Your task to perform on an android device: refresh tabs in the chrome app Image 0: 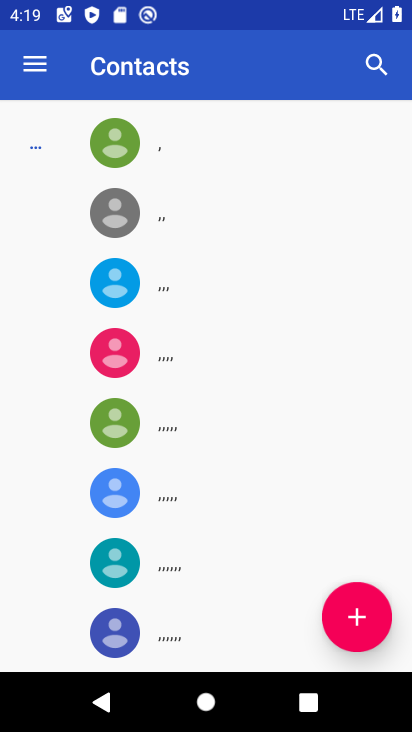
Step 0: press home button
Your task to perform on an android device: refresh tabs in the chrome app Image 1: 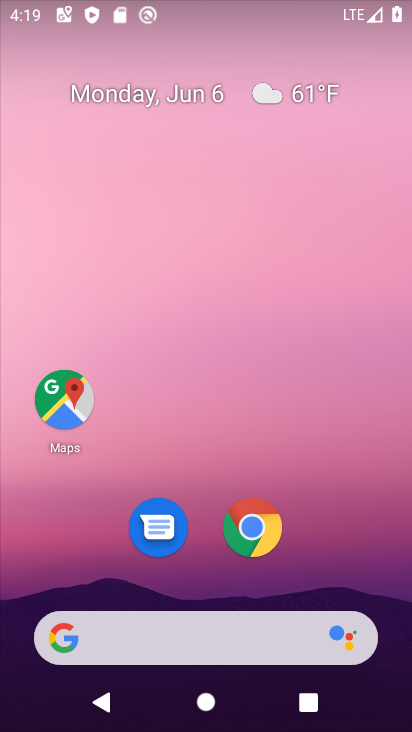
Step 1: click (260, 551)
Your task to perform on an android device: refresh tabs in the chrome app Image 2: 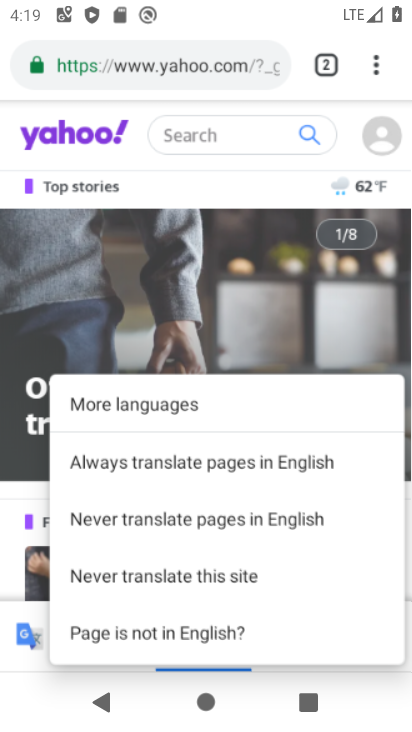
Step 2: click (377, 69)
Your task to perform on an android device: refresh tabs in the chrome app Image 3: 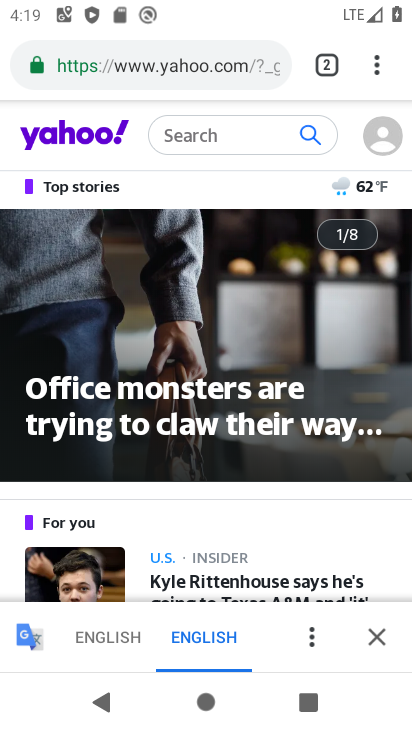
Step 3: click (377, 69)
Your task to perform on an android device: refresh tabs in the chrome app Image 4: 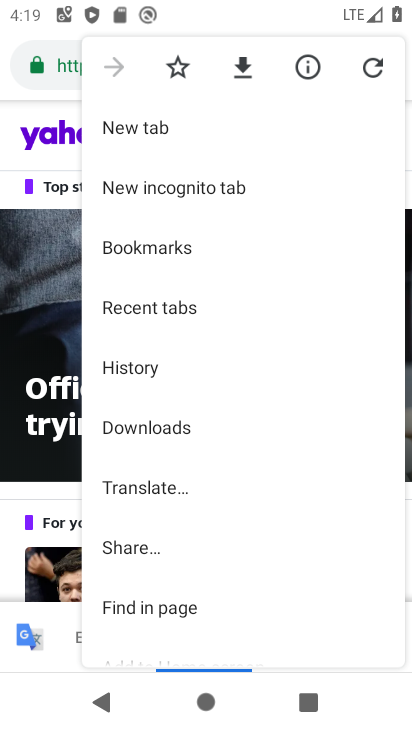
Step 4: click (374, 62)
Your task to perform on an android device: refresh tabs in the chrome app Image 5: 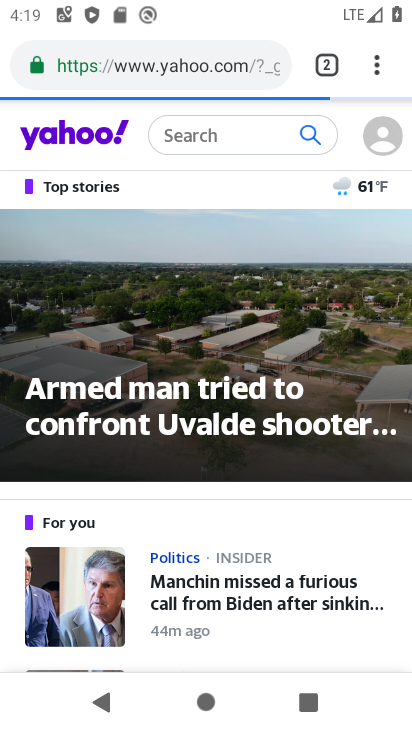
Step 5: task complete